Your task to perform on an android device: turn off wifi Image 0: 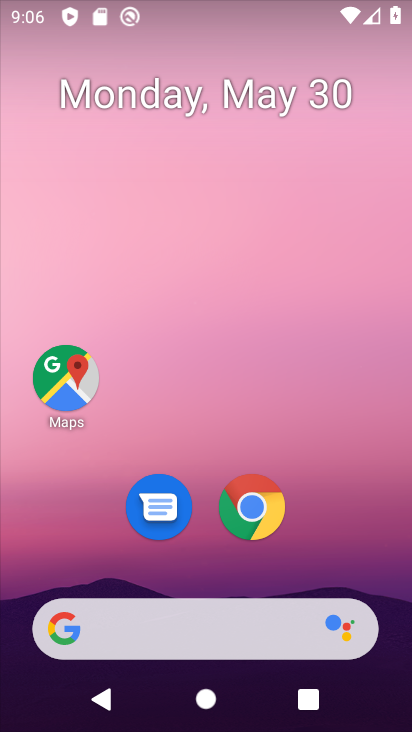
Step 0: drag from (231, 544) to (237, 182)
Your task to perform on an android device: turn off wifi Image 1: 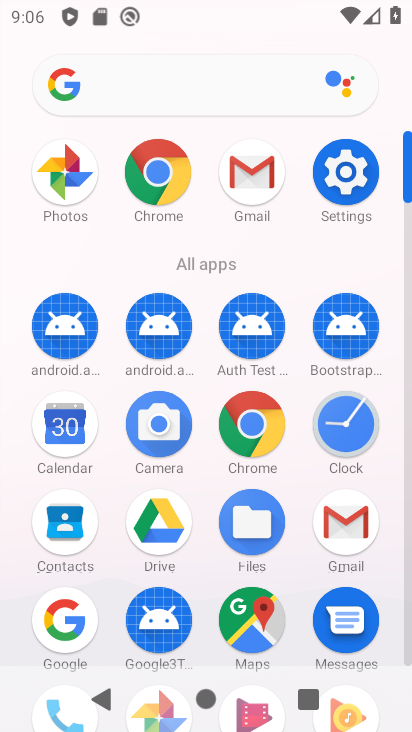
Step 1: click (332, 176)
Your task to perform on an android device: turn off wifi Image 2: 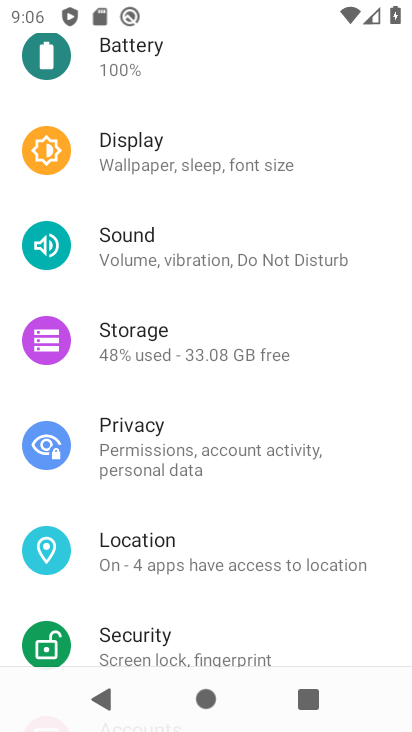
Step 2: drag from (205, 107) to (236, 589)
Your task to perform on an android device: turn off wifi Image 3: 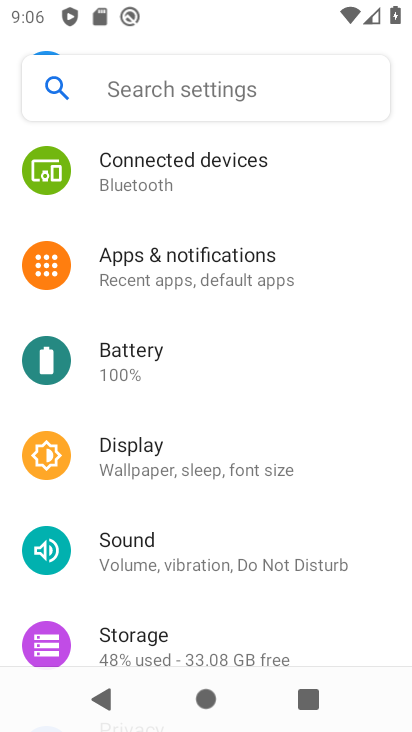
Step 3: click (159, 566)
Your task to perform on an android device: turn off wifi Image 4: 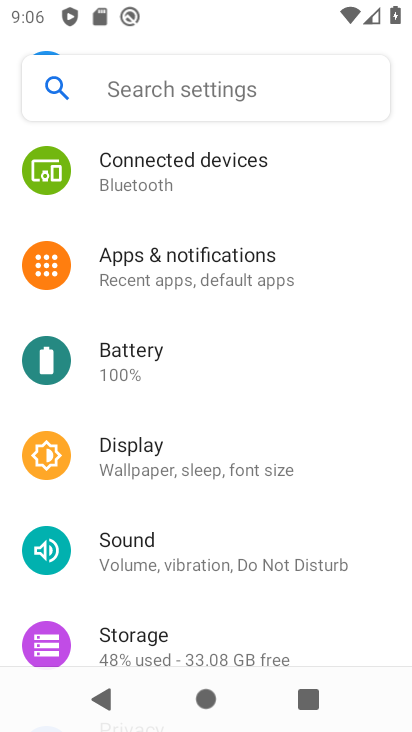
Step 4: drag from (199, 164) to (198, 515)
Your task to perform on an android device: turn off wifi Image 5: 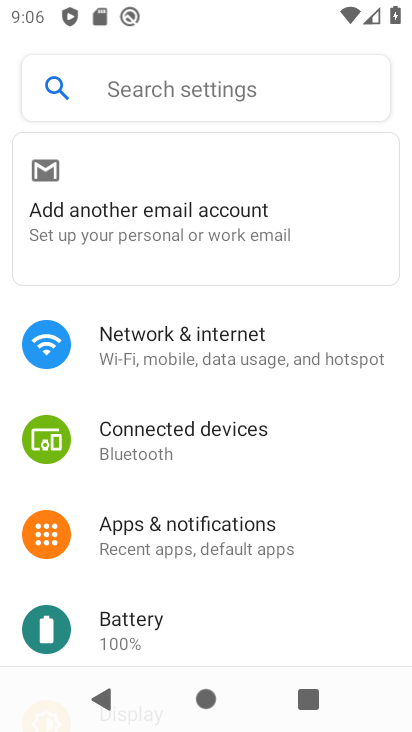
Step 5: click (168, 331)
Your task to perform on an android device: turn off wifi Image 6: 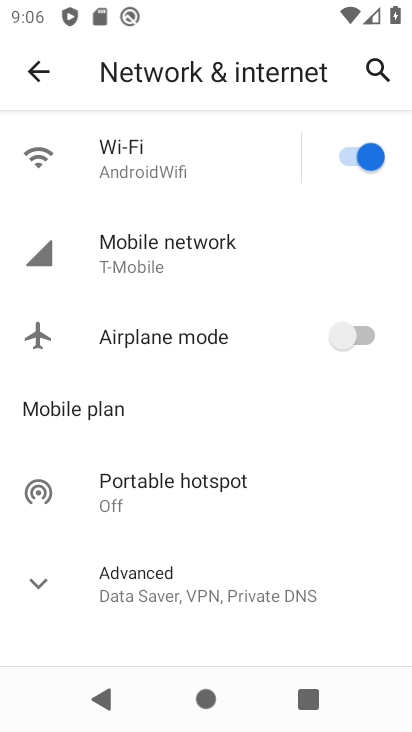
Step 6: click (351, 161)
Your task to perform on an android device: turn off wifi Image 7: 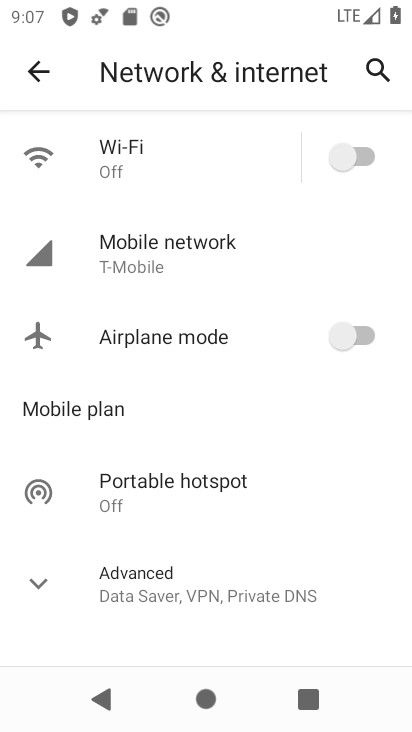
Step 7: task complete